Your task to perform on an android device: turn on showing notifications on the lock screen Image 0: 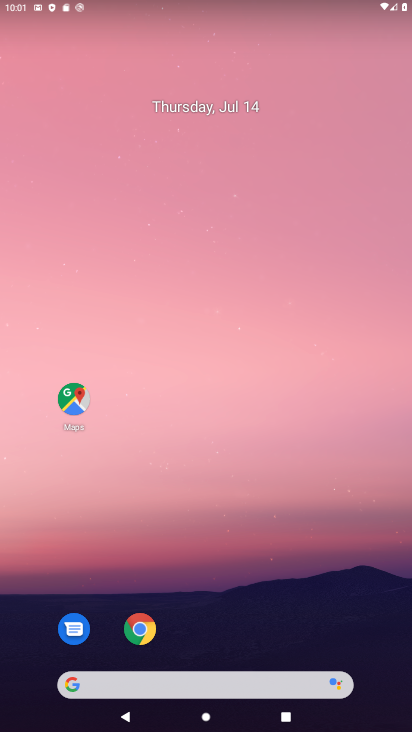
Step 0: drag from (194, 673) to (190, 353)
Your task to perform on an android device: turn on showing notifications on the lock screen Image 1: 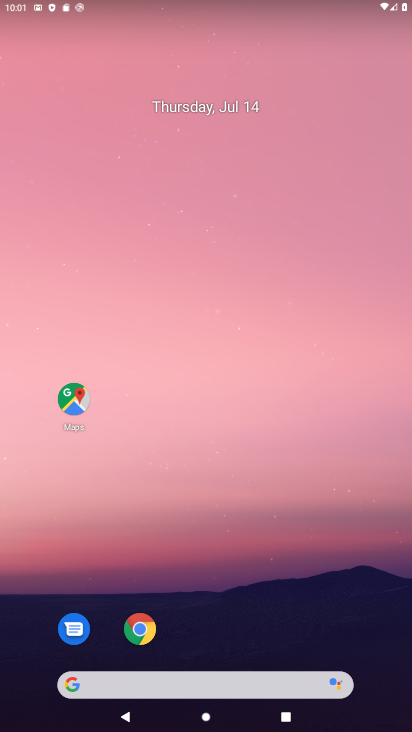
Step 1: drag from (147, 650) to (198, 278)
Your task to perform on an android device: turn on showing notifications on the lock screen Image 2: 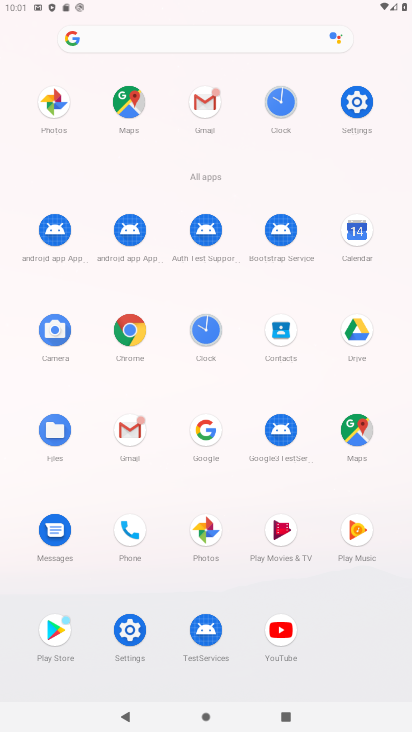
Step 2: click (370, 105)
Your task to perform on an android device: turn on showing notifications on the lock screen Image 3: 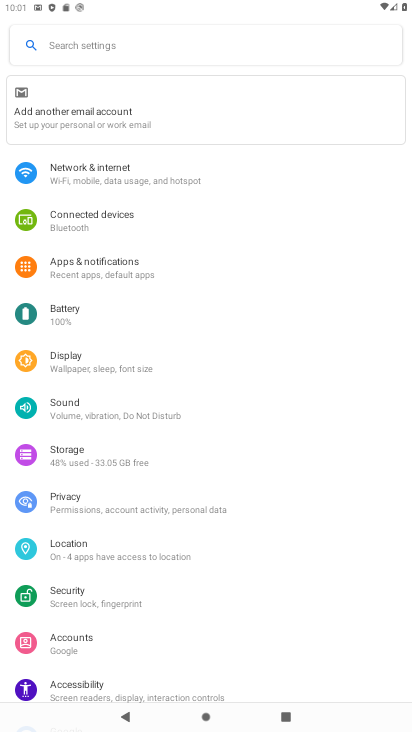
Step 3: click (66, 508)
Your task to perform on an android device: turn on showing notifications on the lock screen Image 4: 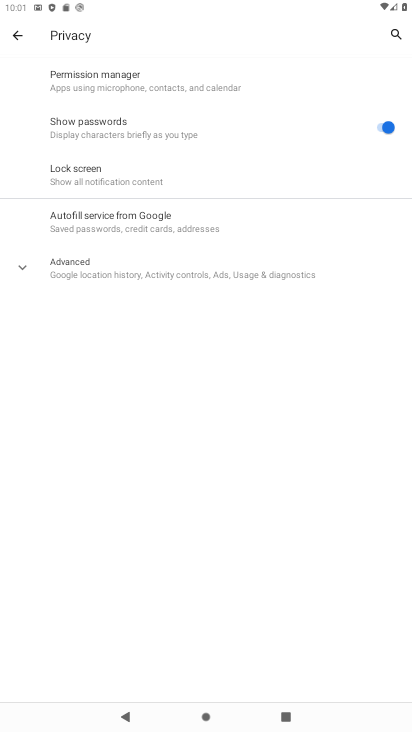
Step 4: click (85, 169)
Your task to perform on an android device: turn on showing notifications on the lock screen Image 5: 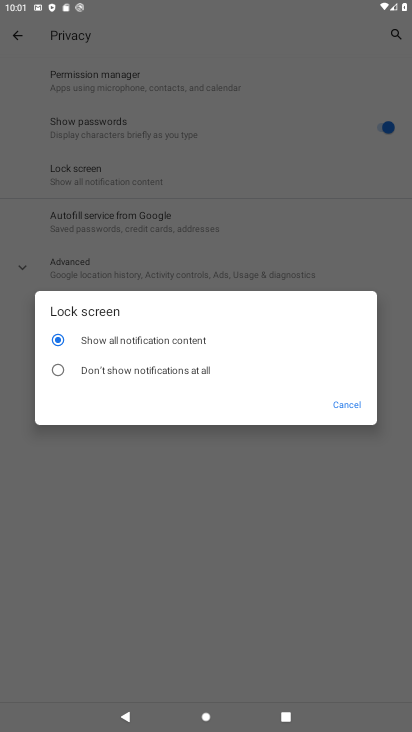
Step 5: click (339, 418)
Your task to perform on an android device: turn on showing notifications on the lock screen Image 6: 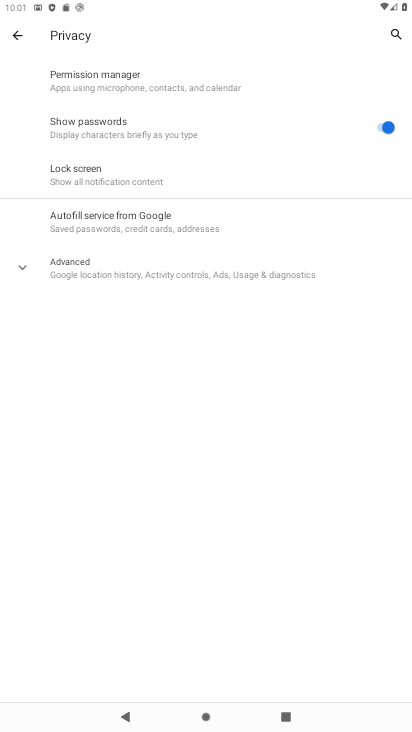
Step 6: task complete